Your task to perform on an android device: Check the weather Image 0: 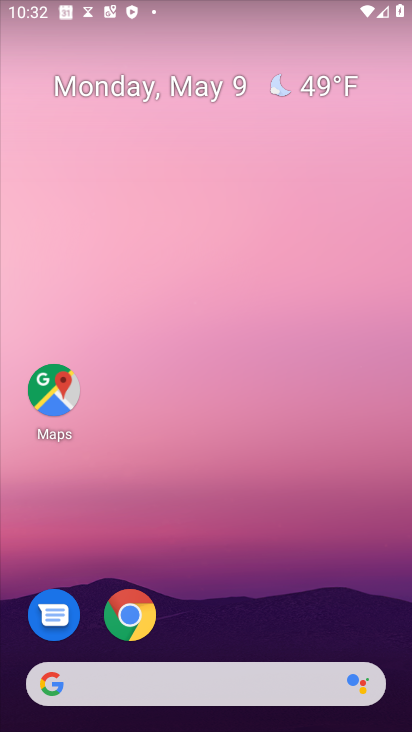
Step 0: drag from (188, 588) to (189, 173)
Your task to perform on an android device: Check the weather Image 1: 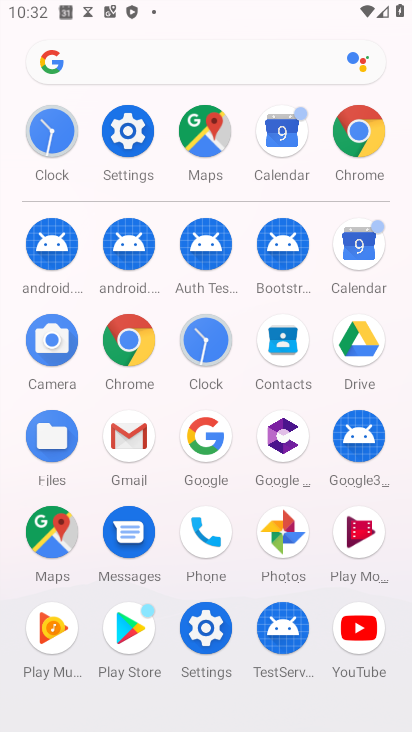
Step 1: click (189, 448)
Your task to perform on an android device: Check the weather Image 2: 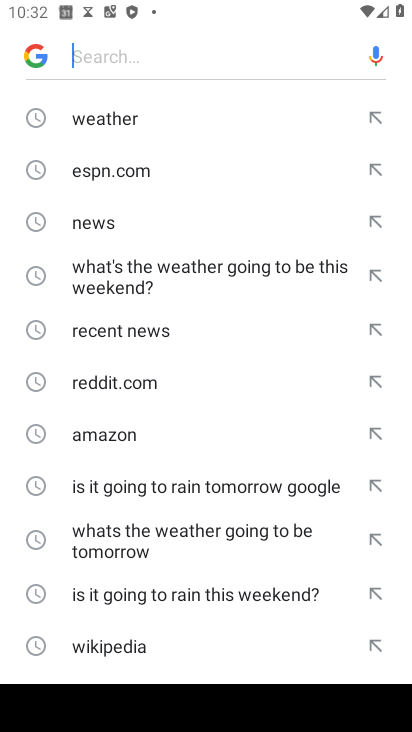
Step 2: type "check the weather"
Your task to perform on an android device: Check the weather Image 3: 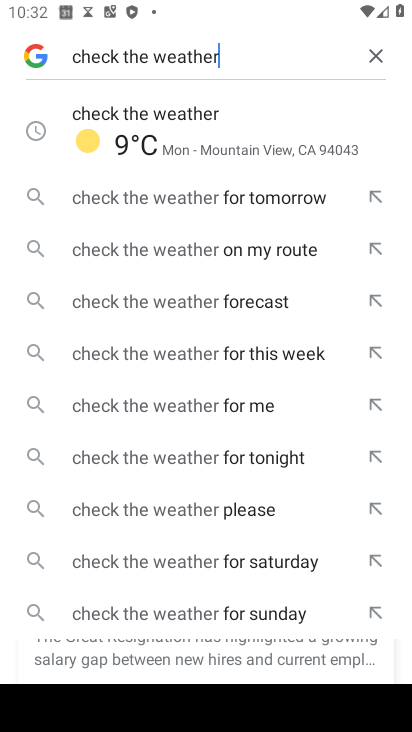
Step 3: click (203, 121)
Your task to perform on an android device: Check the weather Image 4: 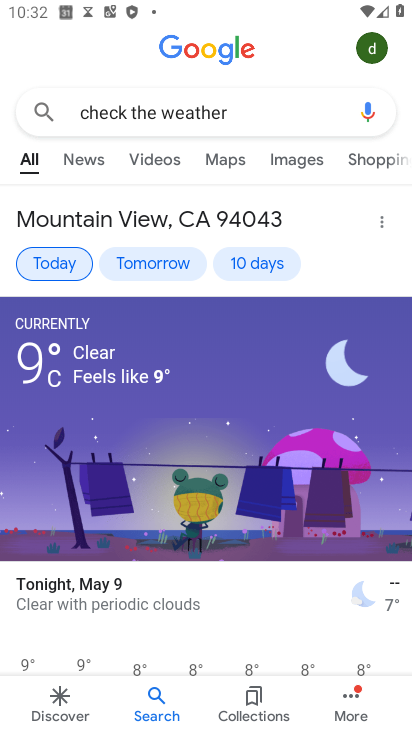
Step 4: task complete